Your task to perform on an android device: toggle wifi Image 0: 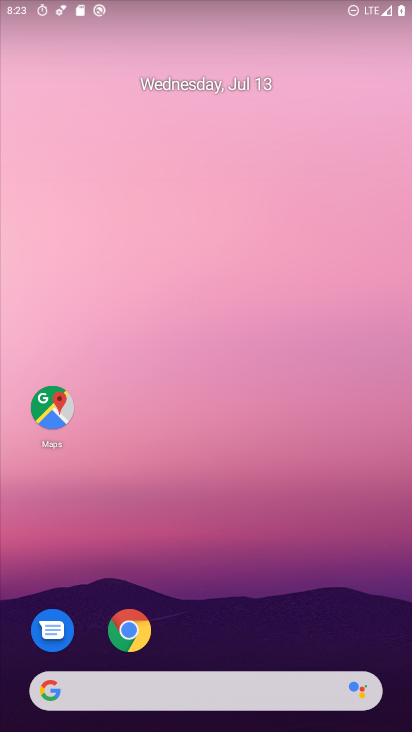
Step 0: drag from (134, 9) to (198, 521)
Your task to perform on an android device: toggle wifi Image 1: 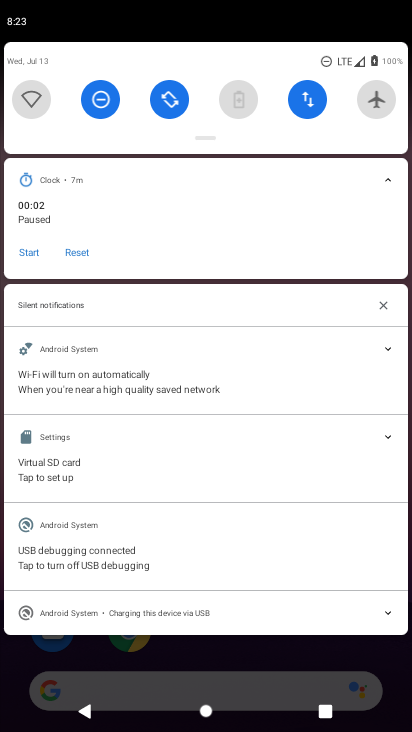
Step 1: click (35, 98)
Your task to perform on an android device: toggle wifi Image 2: 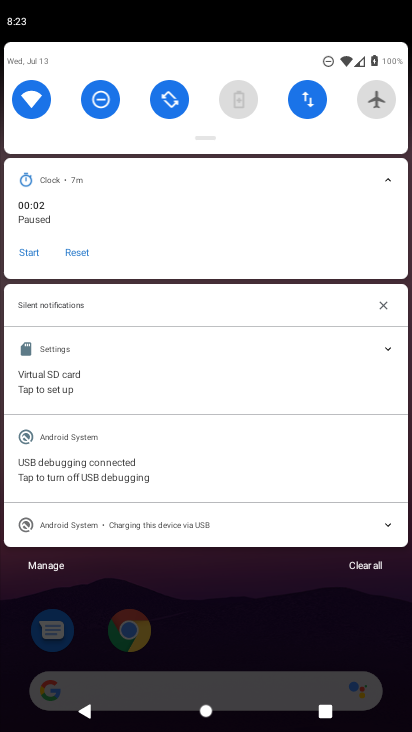
Step 2: task complete